Your task to perform on an android device: Set the phone to "Do not disturb". Image 0: 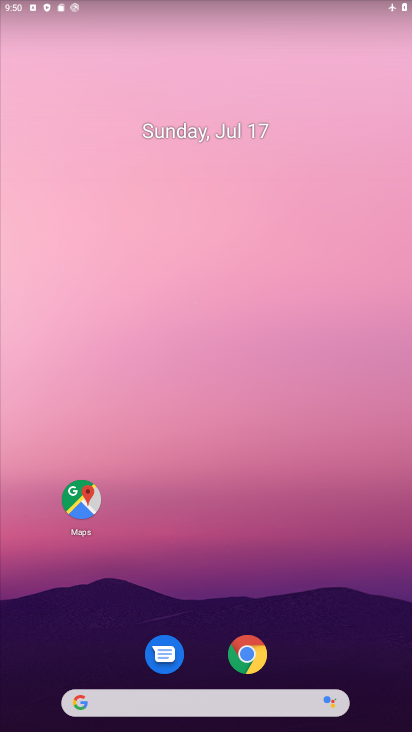
Step 0: drag from (201, 637) to (176, 71)
Your task to perform on an android device: Set the phone to "Do not disturb". Image 1: 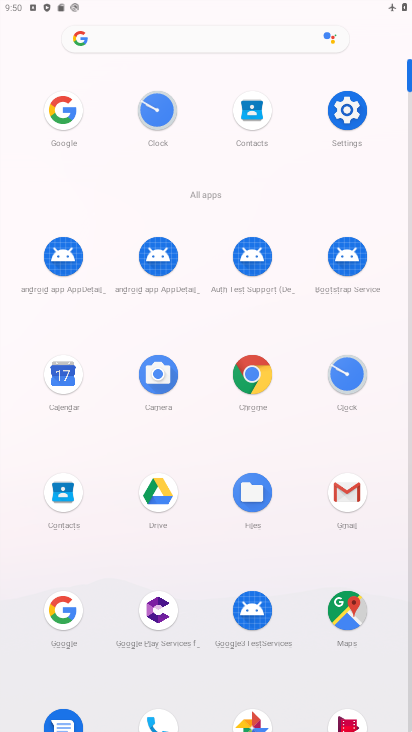
Step 1: click (331, 106)
Your task to perform on an android device: Set the phone to "Do not disturb". Image 2: 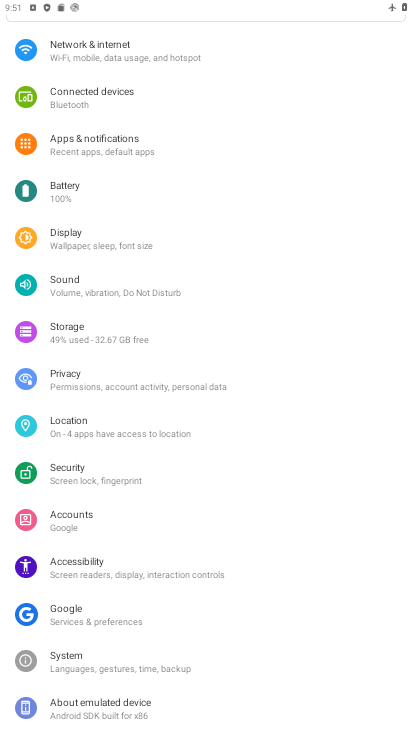
Step 2: click (118, 282)
Your task to perform on an android device: Set the phone to "Do not disturb". Image 3: 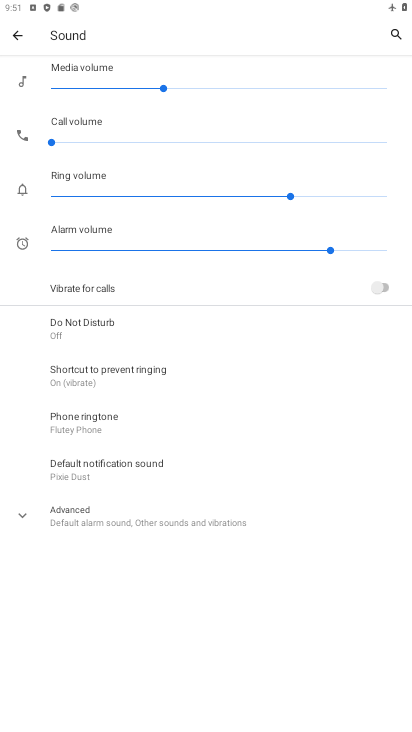
Step 3: click (87, 334)
Your task to perform on an android device: Set the phone to "Do not disturb". Image 4: 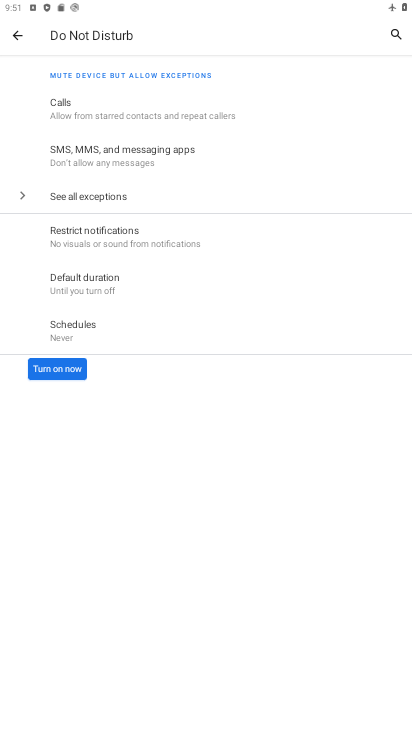
Step 4: click (60, 372)
Your task to perform on an android device: Set the phone to "Do not disturb". Image 5: 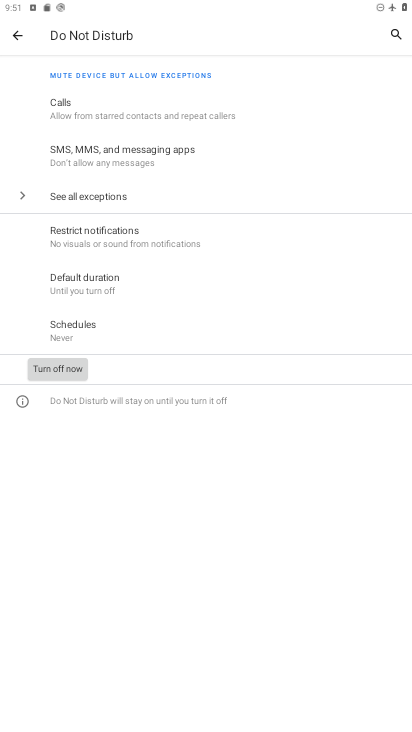
Step 5: task complete